Your task to perform on an android device: install app "Microsoft Authenticator" Image 0: 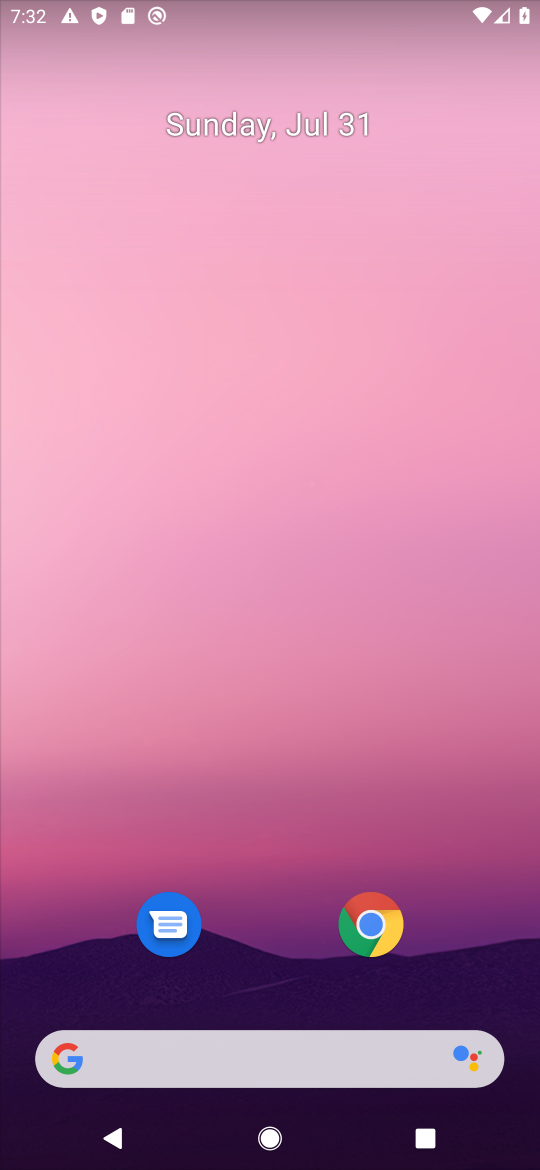
Step 0: drag from (168, 952) to (222, 510)
Your task to perform on an android device: install app "Microsoft Authenticator" Image 1: 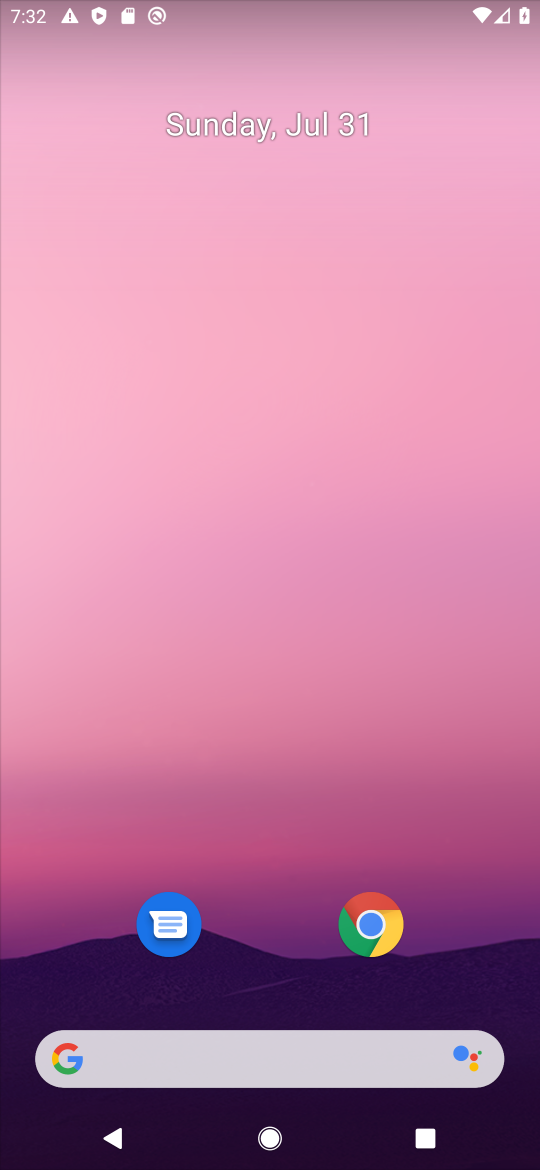
Step 1: drag from (312, 852) to (312, 293)
Your task to perform on an android device: install app "Microsoft Authenticator" Image 2: 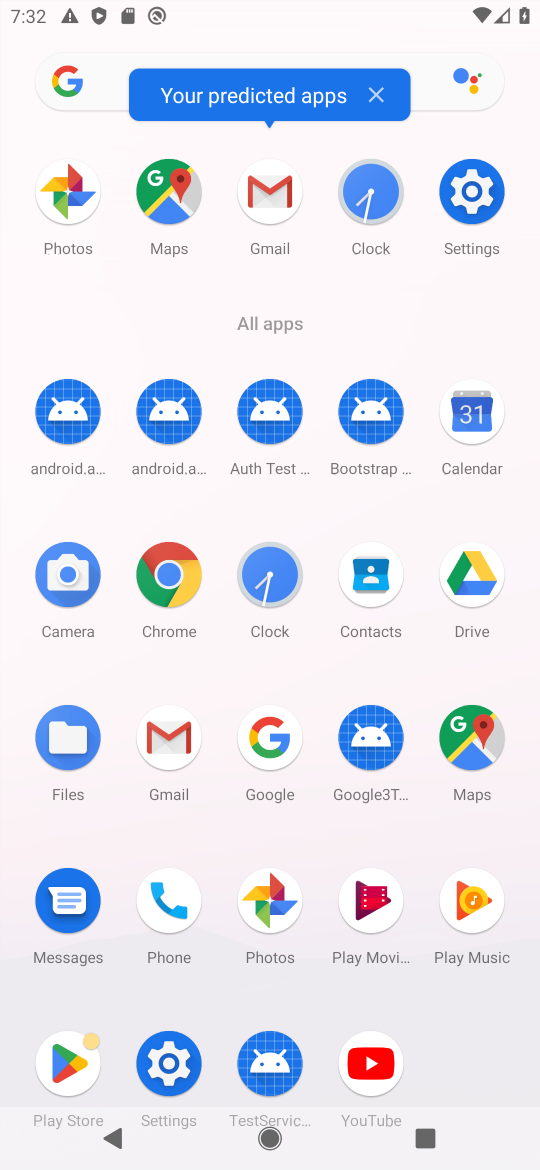
Step 2: click (69, 1079)
Your task to perform on an android device: install app "Microsoft Authenticator" Image 3: 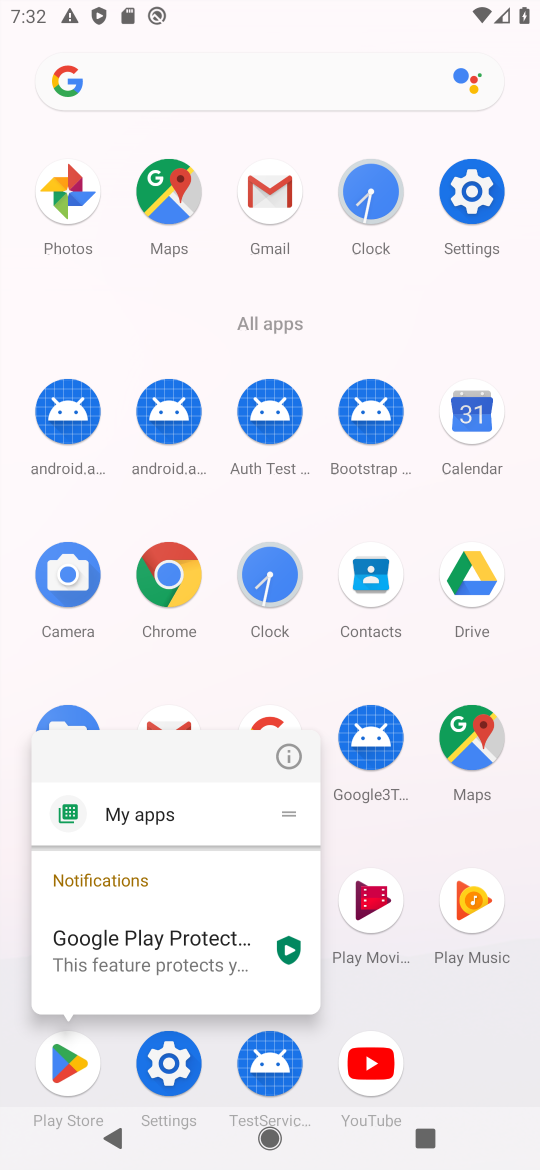
Step 3: click (59, 1065)
Your task to perform on an android device: install app "Microsoft Authenticator" Image 4: 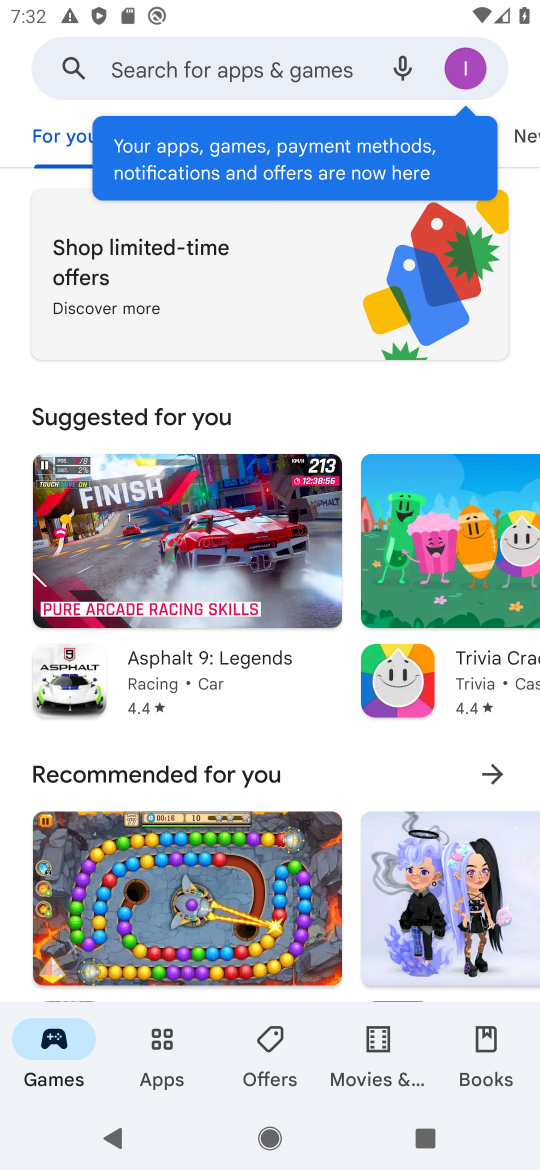
Step 4: click (161, 73)
Your task to perform on an android device: install app "Microsoft Authenticator" Image 5: 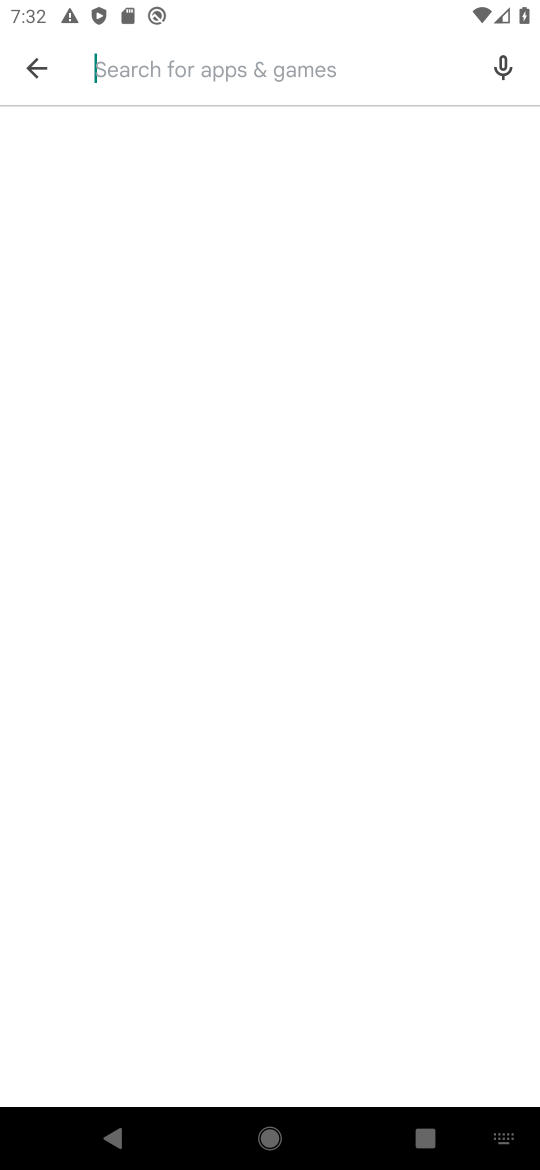
Step 5: type "Microsoft Authenticator"
Your task to perform on an android device: install app "Microsoft Authenticator" Image 6: 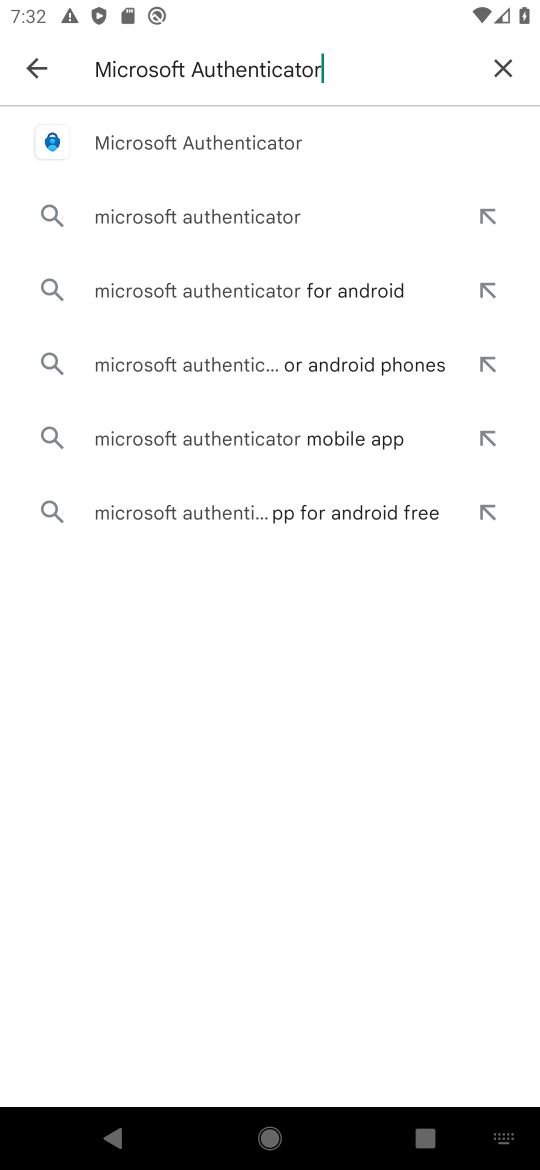
Step 6: click (179, 138)
Your task to perform on an android device: install app "Microsoft Authenticator" Image 7: 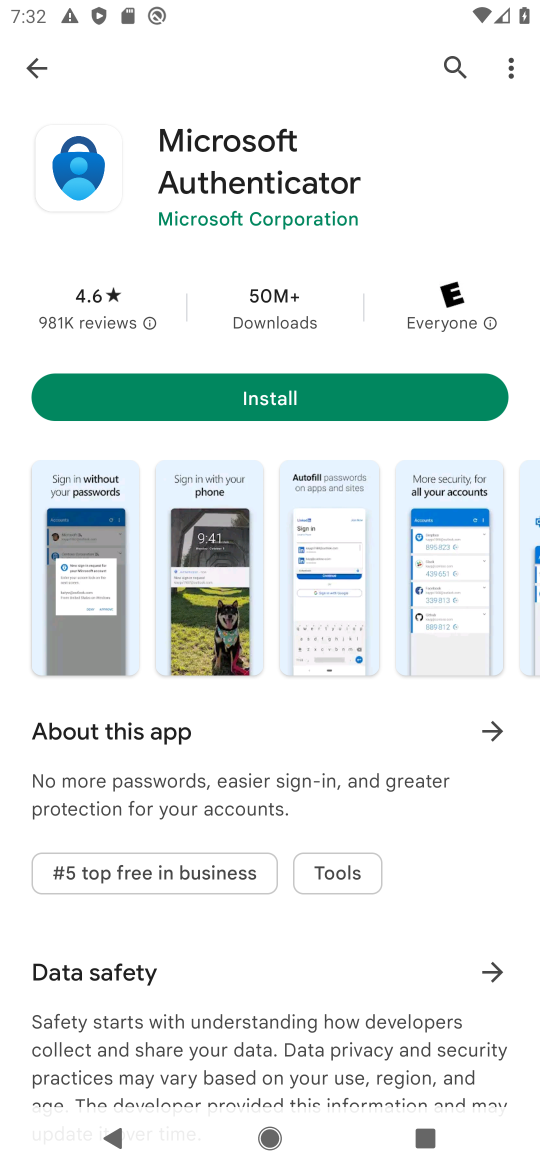
Step 7: click (294, 396)
Your task to perform on an android device: install app "Microsoft Authenticator" Image 8: 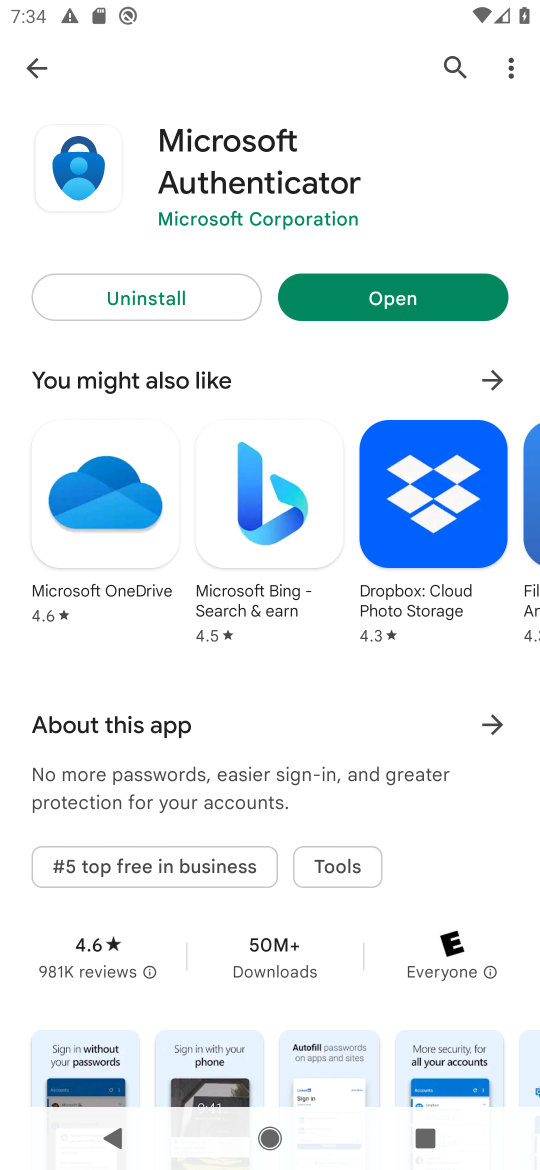
Step 8: click (381, 309)
Your task to perform on an android device: install app "Microsoft Authenticator" Image 9: 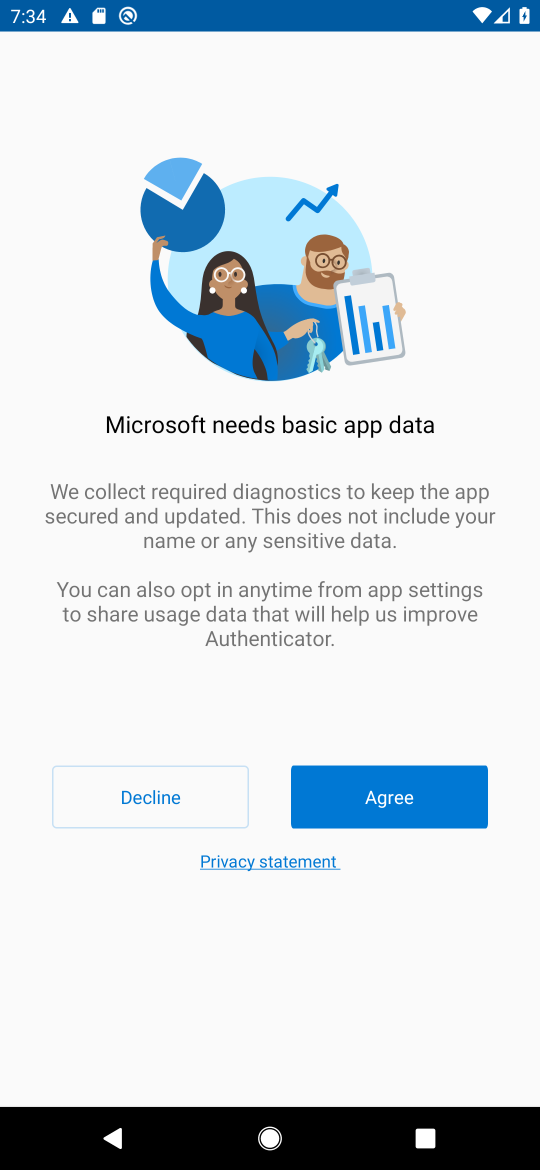
Step 9: task complete